Your task to perform on an android device: open device folders in google photos Image 0: 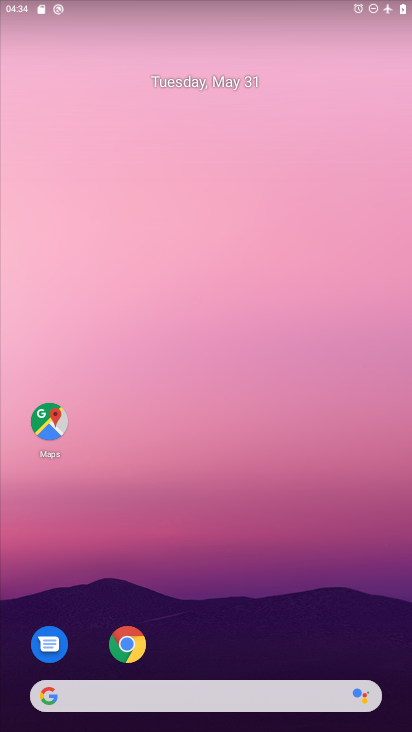
Step 0: drag from (282, 586) to (275, 143)
Your task to perform on an android device: open device folders in google photos Image 1: 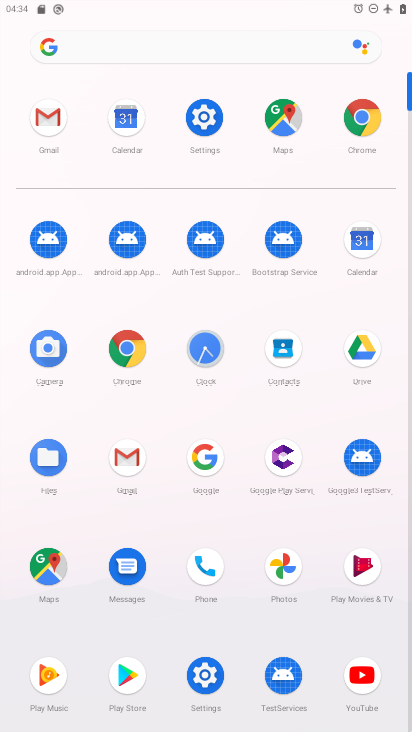
Step 1: click (283, 560)
Your task to perform on an android device: open device folders in google photos Image 2: 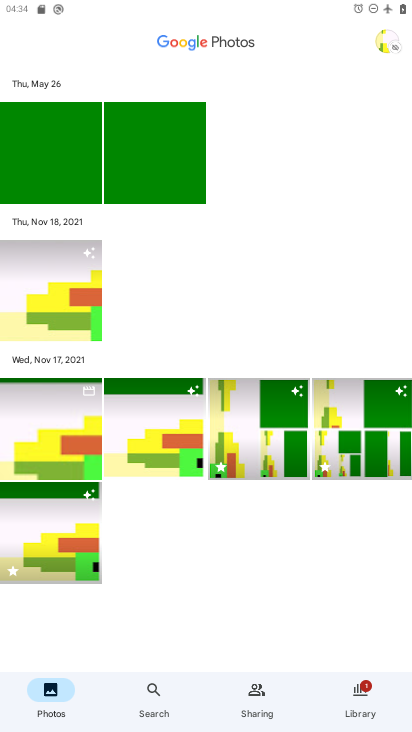
Step 2: click (383, 720)
Your task to perform on an android device: open device folders in google photos Image 3: 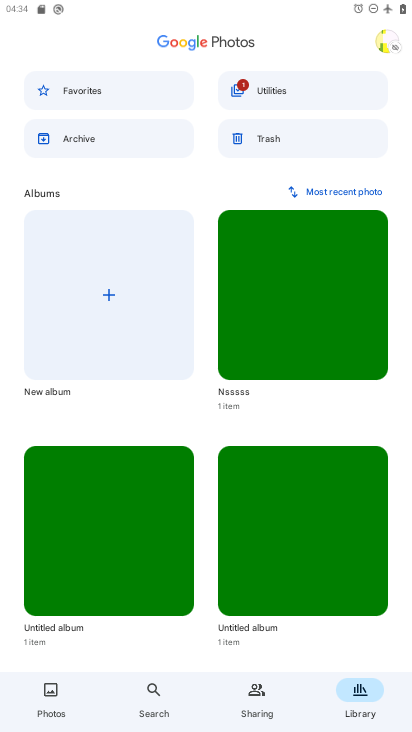
Step 3: drag from (290, 563) to (334, 675)
Your task to perform on an android device: open device folders in google photos Image 4: 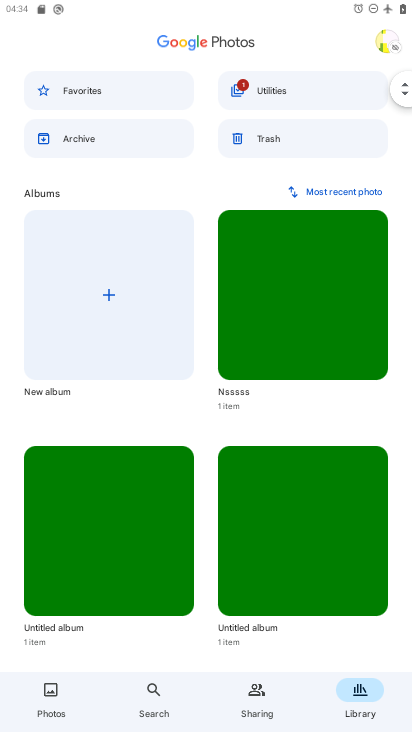
Step 4: click (288, 88)
Your task to perform on an android device: open device folders in google photos Image 5: 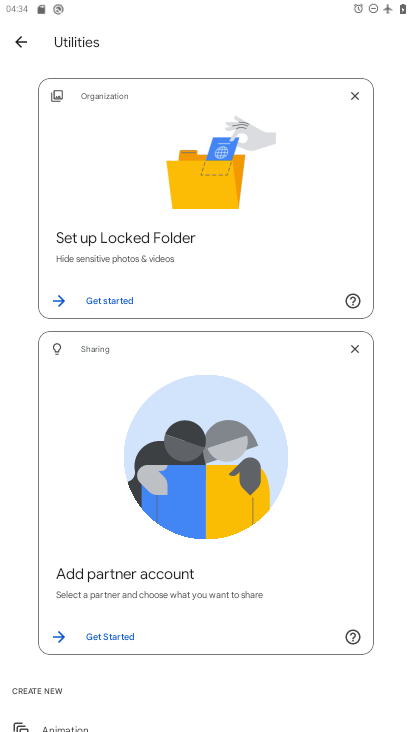
Step 5: drag from (267, 547) to (315, 11)
Your task to perform on an android device: open device folders in google photos Image 6: 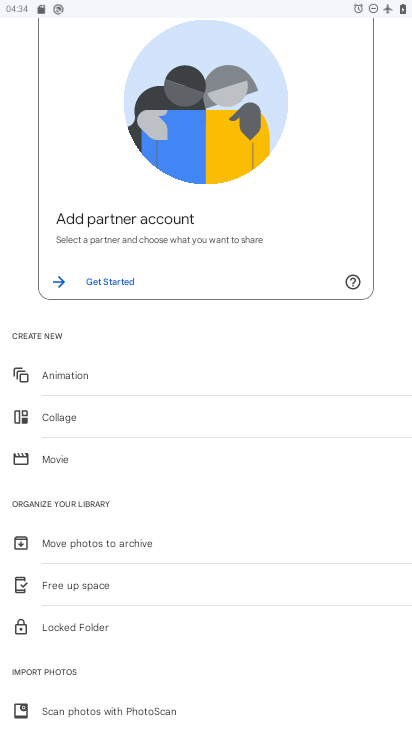
Step 6: drag from (162, 122) to (223, 630)
Your task to perform on an android device: open device folders in google photos Image 7: 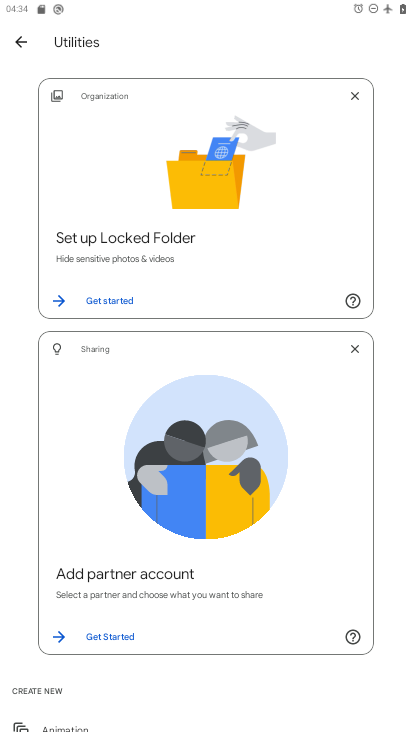
Step 7: click (13, 42)
Your task to perform on an android device: open device folders in google photos Image 8: 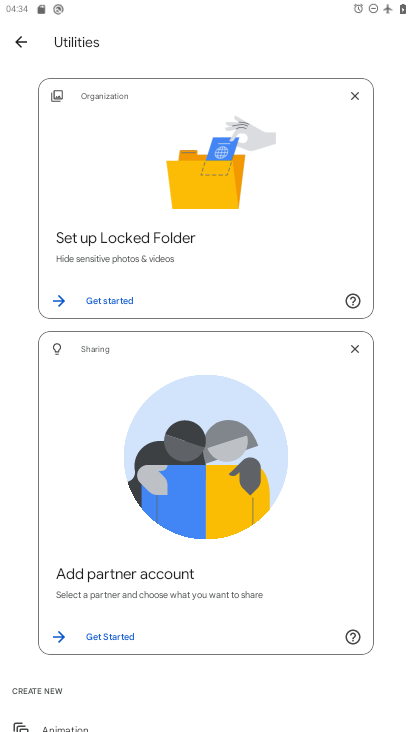
Step 8: click (27, 50)
Your task to perform on an android device: open device folders in google photos Image 9: 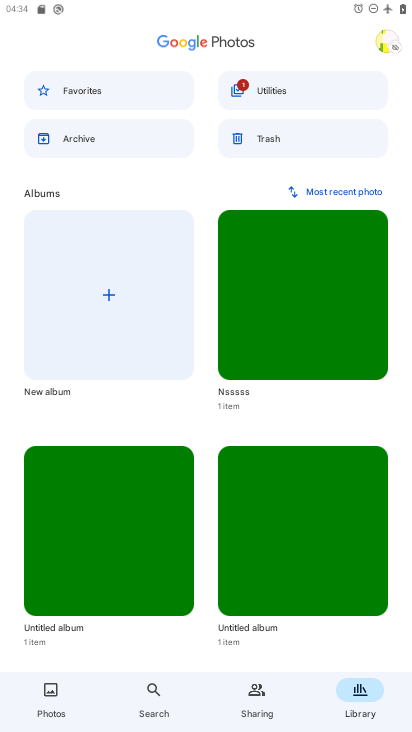
Step 9: click (385, 38)
Your task to perform on an android device: open device folders in google photos Image 10: 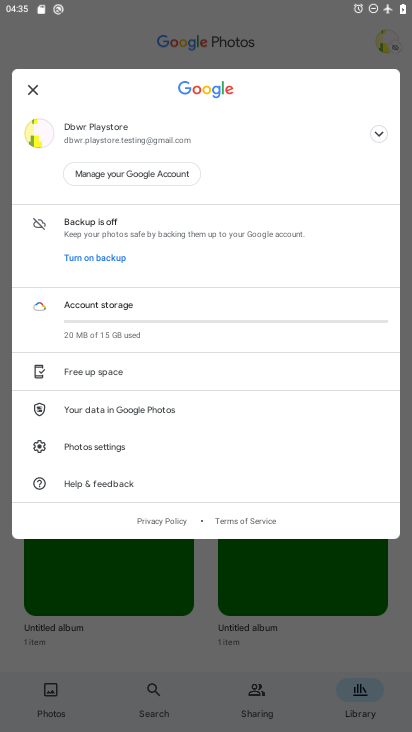
Step 10: click (113, 221)
Your task to perform on an android device: open device folders in google photos Image 11: 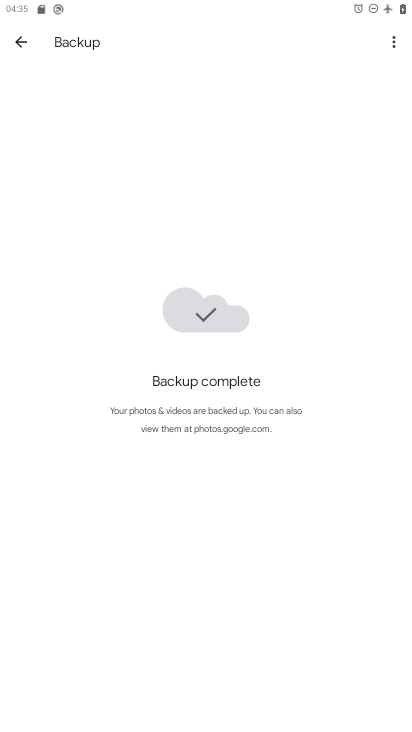
Step 11: click (18, 38)
Your task to perform on an android device: open device folders in google photos Image 12: 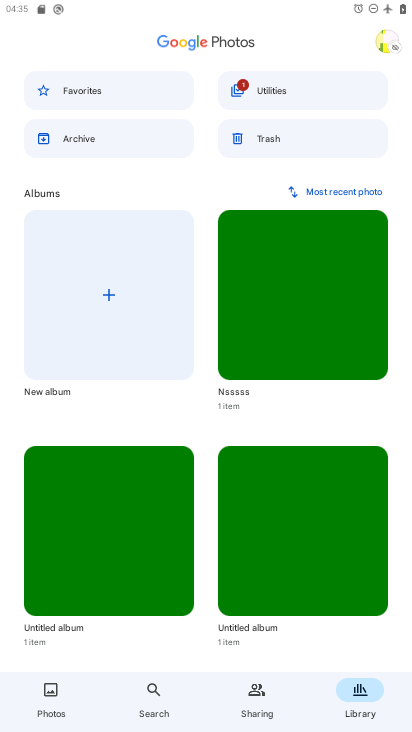
Step 12: click (384, 42)
Your task to perform on an android device: open device folders in google photos Image 13: 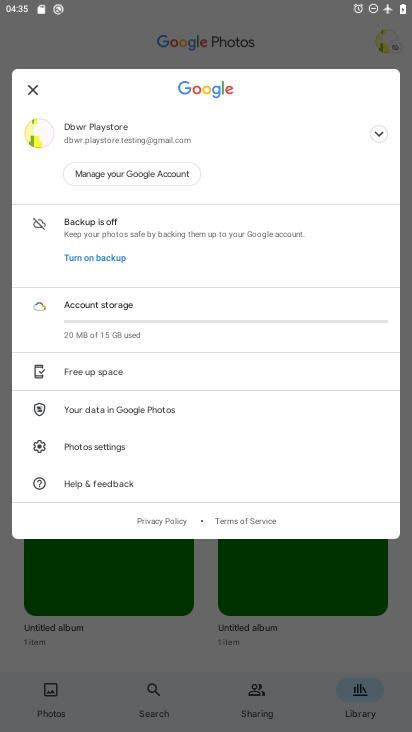
Step 13: click (107, 452)
Your task to perform on an android device: open device folders in google photos Image 14: 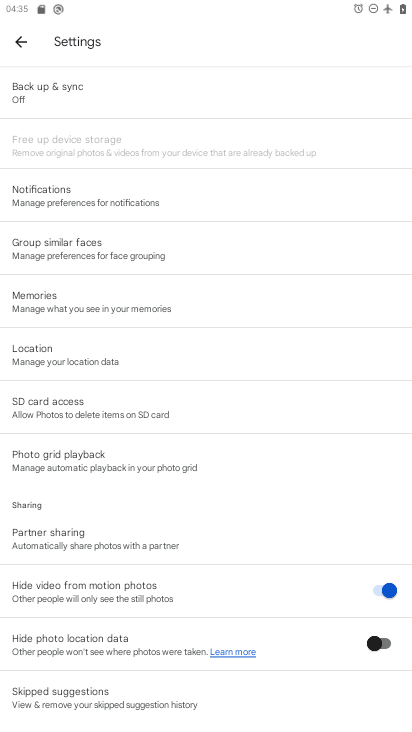
Step 14: click (80, 92)
Your task to perform on an android device: open device folders in google photos Image 15: 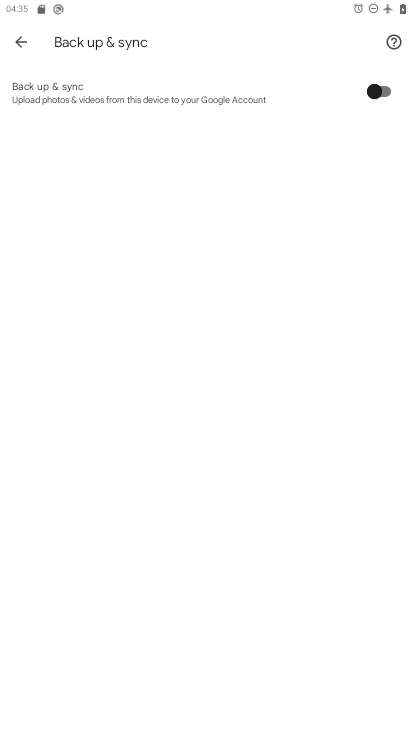
Step 15: click (370, 90)
Your task to perform on an android device: open device folders in google photos Image 16: 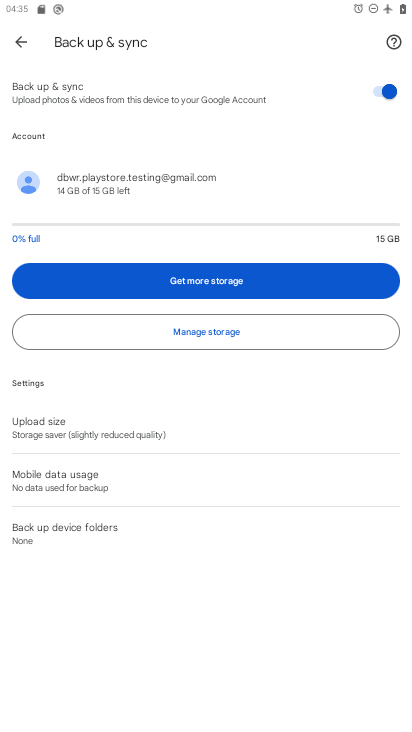
Step 16: click (101, 533)
Your task to perform on an android device: open device folders in google photos Image 17: 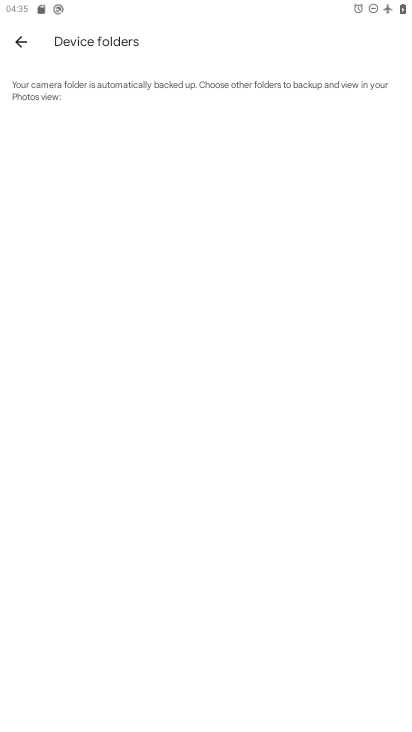
Step 17: click (27, 44)
Your task to perform on an android device: open device folders in google photos Image 18: 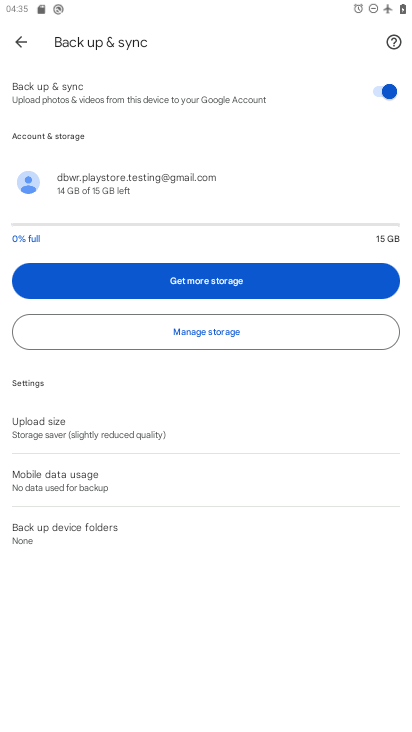
Step 18: click (133, 527)
Your task to perform on an android device: open device folders in google photos Image 19: 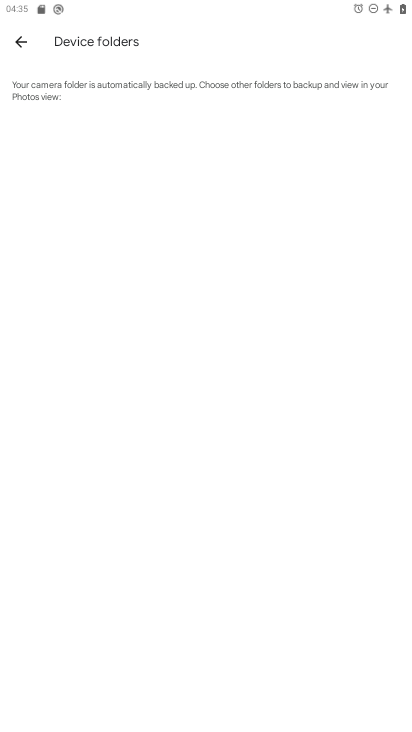
Step 19: task complete